Your task to perform on an android device: turn on notifications settings in the gmail app Image 0: 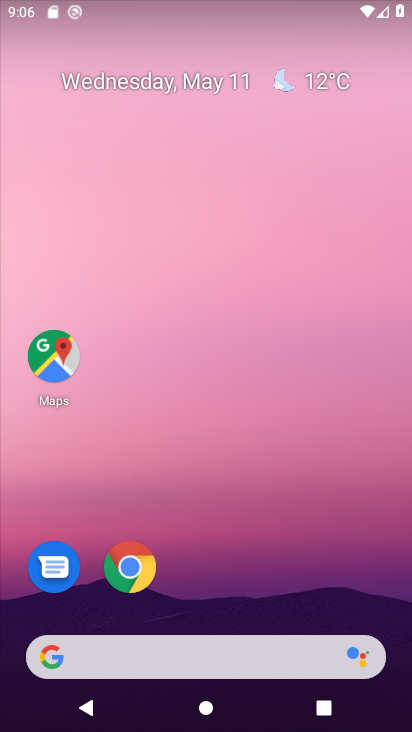
Step 0: drag from (224, 464) to (268, 219)
Your task to perform on an android device: turn on notifications settings in the gmail app Image 1: 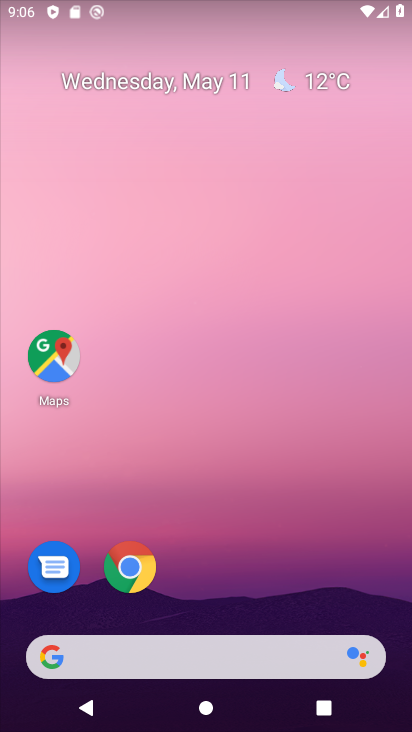
Step 1: drag from (250, 563) to (244, 99)
Your task to perform on an android device: turn on notifications settings in the gmail app Image 2: 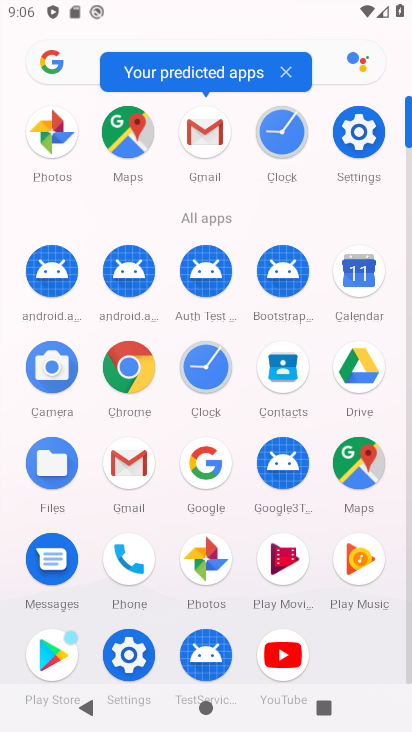
Step 2: click (199, 135)
Your task to perform on an android device: turn on notifications settings in the gmail app Image 3: 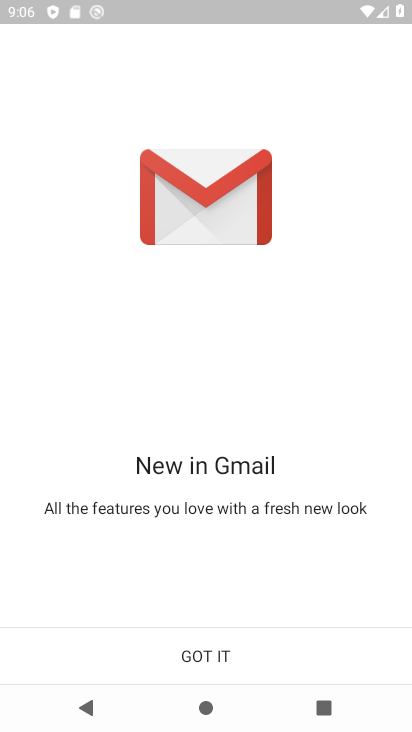
Step 3: click (182, 669)
Your task to perform on an android device: turn on notifications settings in the gmail app Image 4: 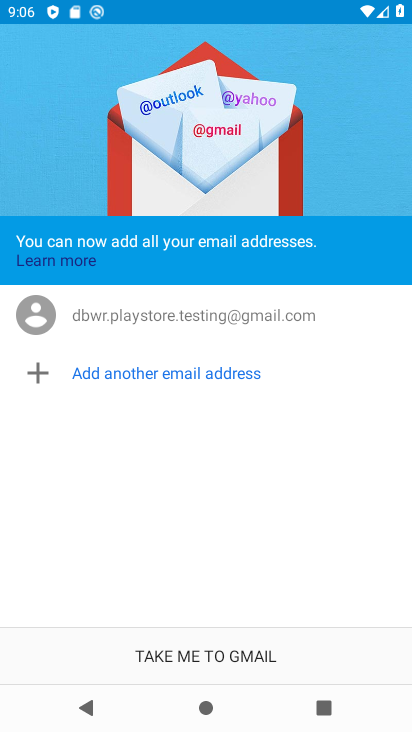
Step 4: click (232, 662)
Your task to perform on an android device: turn on notifications settings in the gmail app Image 5: 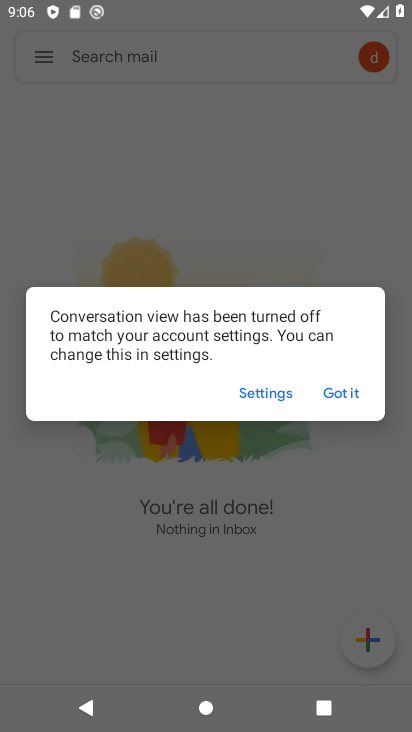
Step 5: click (335, 400)
Your task to perform on an android device: turn on notifications settings in the gmail app Image 6: 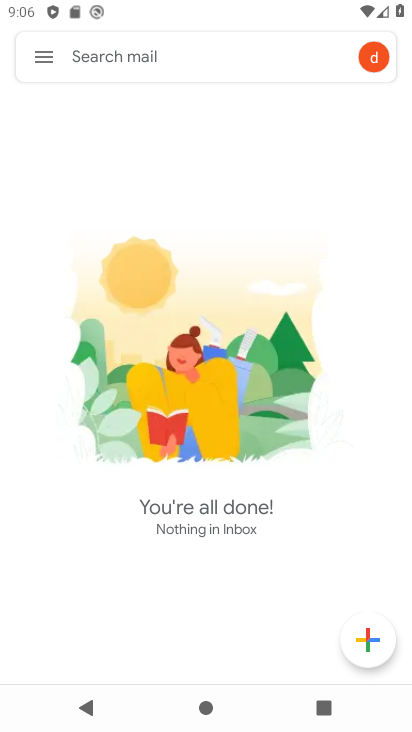
Step 6: click (54, 58)
Your task to perform on an android device: turn on notifications settings in the gmail app Image 7: 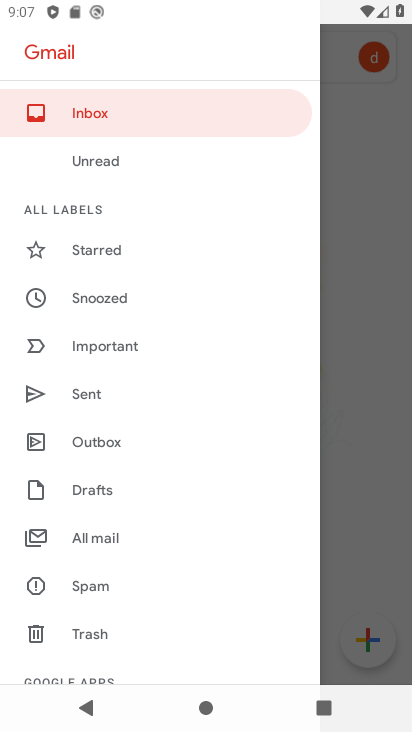
Step 7: drag from (106, 616) to (188, 211)
Your task to perform on an android device: turn on notifications settings in the gmail app Image 8: 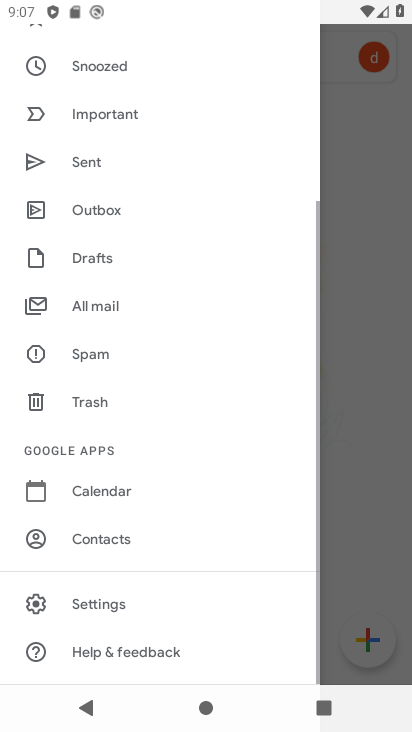
Step 8: click (120, 603)
Your task to perform on an android device: turn on notifications settings in the gmail app Image 9: 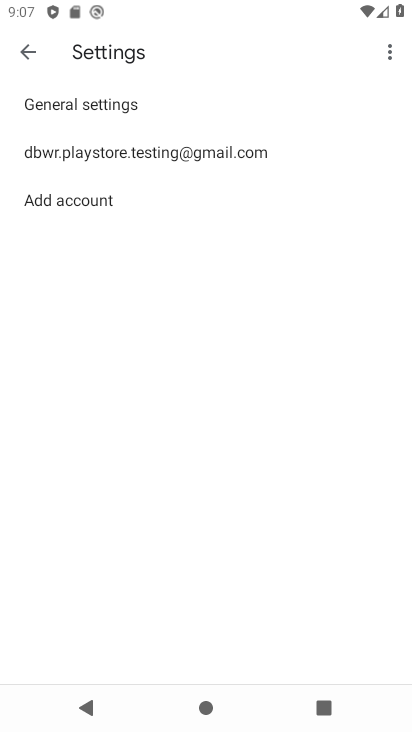
Step 9: click (117, 158)
Your task to perform on an android device: turn on notifications settings in the gmail app Image 10: 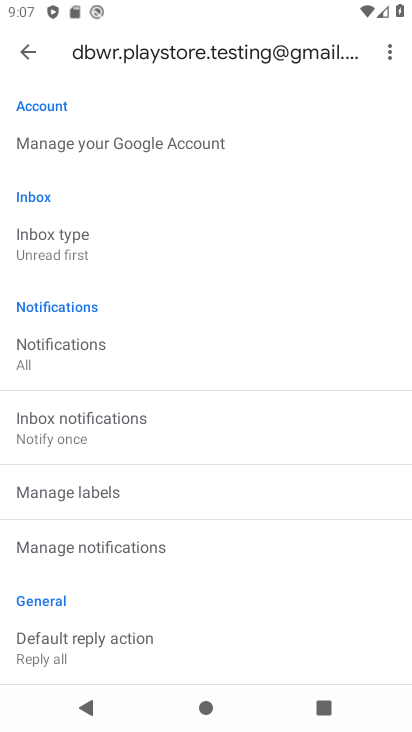
Step 10: click (72, 363)
Your task to perform on an android device: turn on notifications settings in the gmail app Image 11: 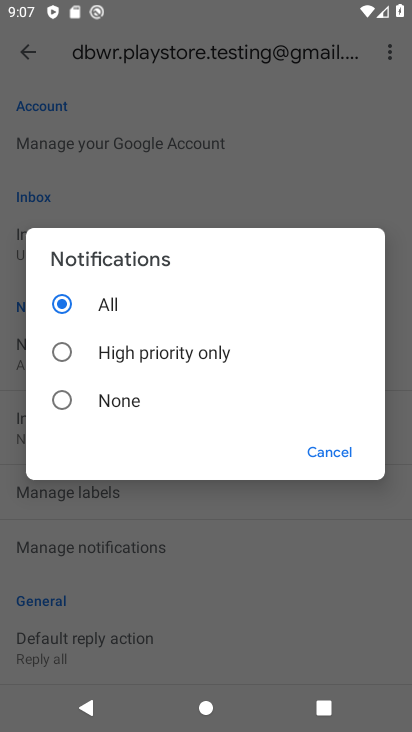
Step 11: task complete